Your task to perform on an android device: turn smart compose on in the gmail app Image 0: 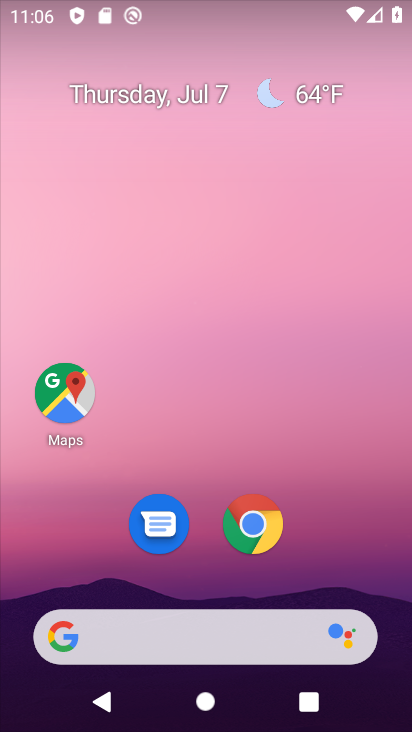
Step 0: drag from (229, 471) to (203, 82)
Your task to perform on an android device: turn smart compose on in the gmail app Image 1: 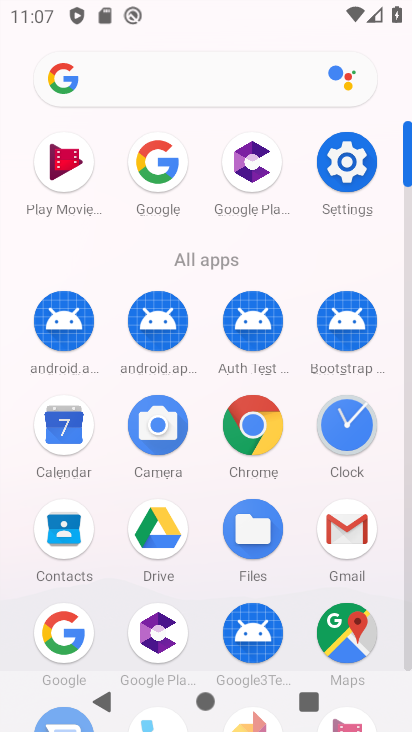
Step 1: click (352, 529)
Your task to perform on an android device: turn smart compose on in the gmail app Image 2: 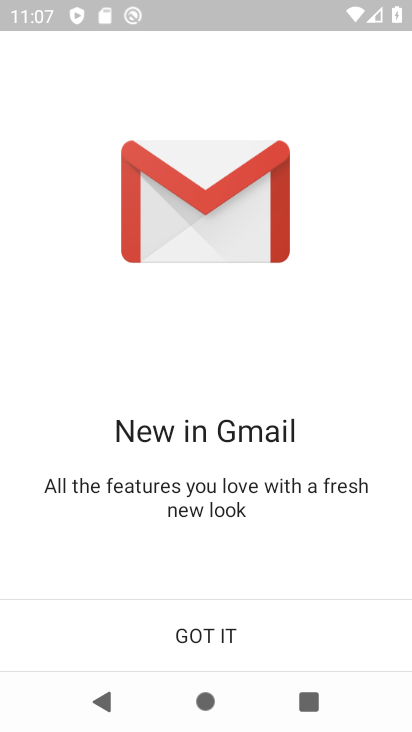
Step 2: click (238, 631)
Your task to perform on an android device: turn smart compose on in the gmail app Image 3: 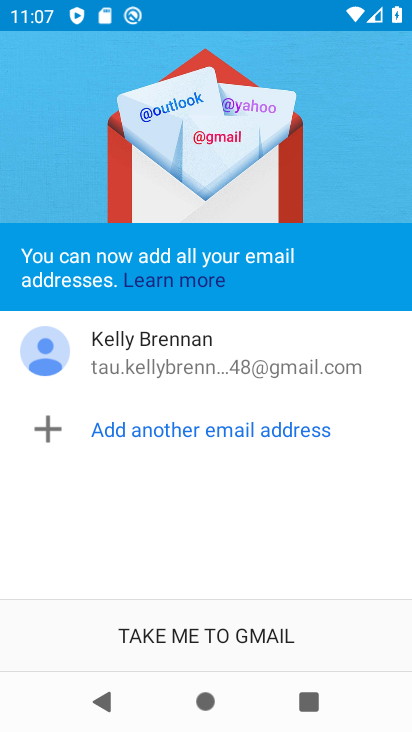
Step 3: click (238, 630)
Your task to perform on an android device: turn smart compose on in the gmail app Image 4: 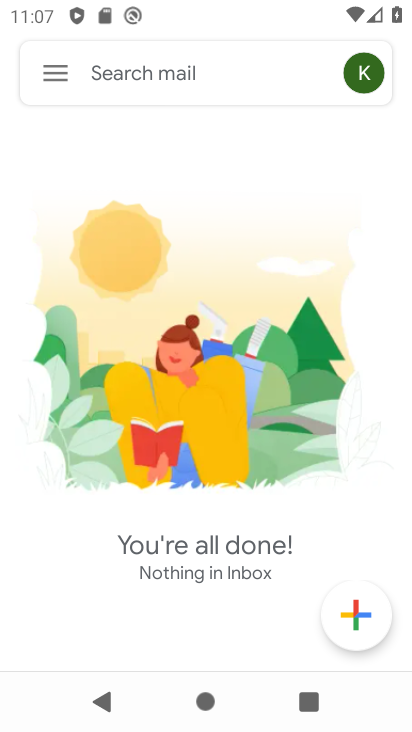
Step 4: click (63, 73)
Your task to perform on an android device: turn smart compose on in the gmail app Image 5: 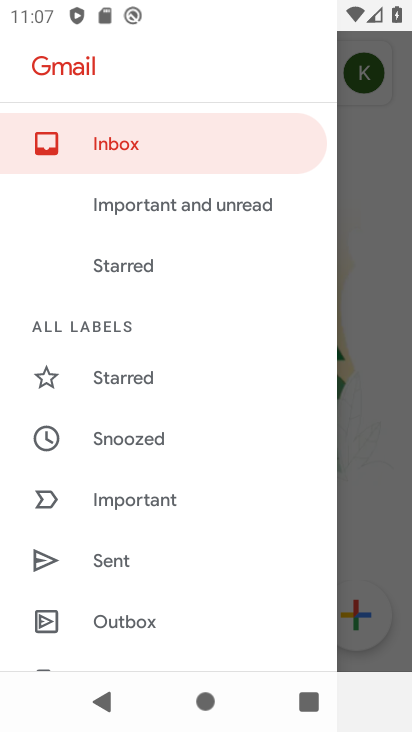
Step 5: drag from (201, 547) to (273, 100)
Your task to perform on an android device: turn smart compose on in the gmail app Image 6: 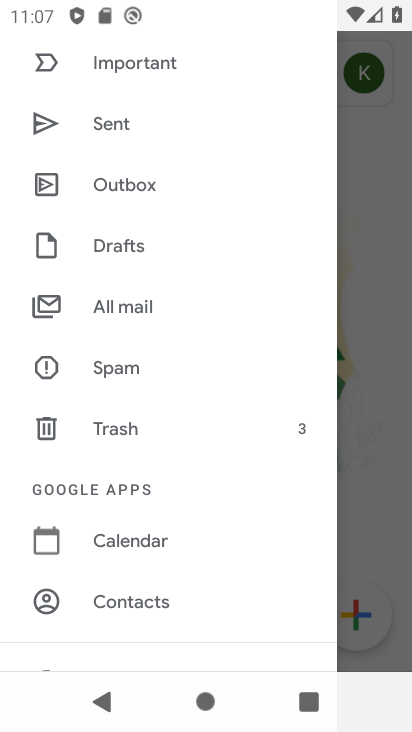
Step 6: drag from (174, 502) to (214, 247)
Your task to perform on an android device: turn smart compose on in the gmail app Image 7: 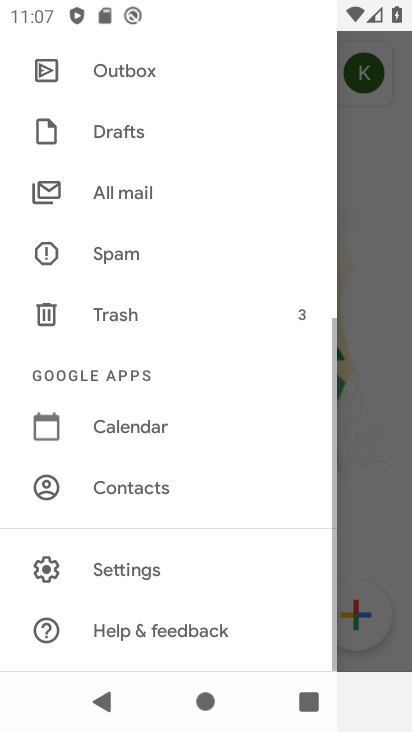
Step 7: click (144, 562)
Your task to perform on an android device: turn smart compose on in the gmail app Image 8: 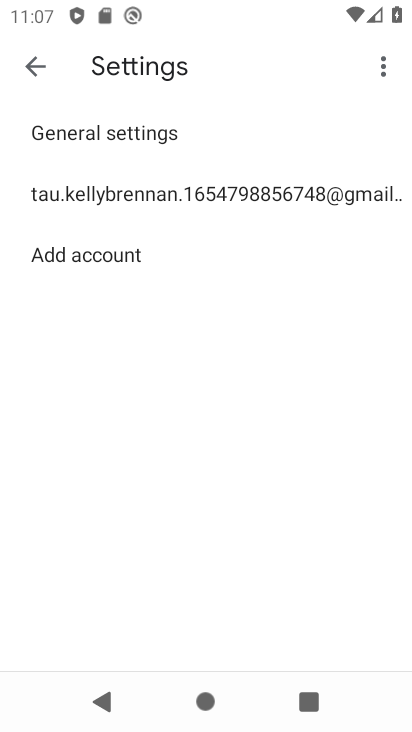
Step 8: click (258, 189)
Your task to perform on an android device: turn smart compose on in the gmail app Image 9: 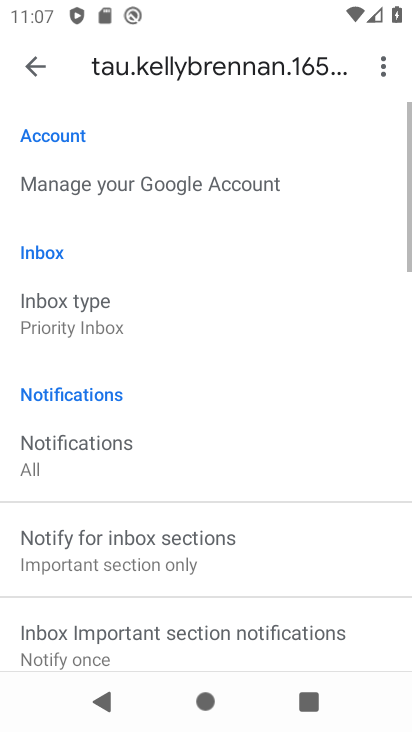
Step 9: task complete